Your task to perform on an android device: Turn off the flashlight Image 0: 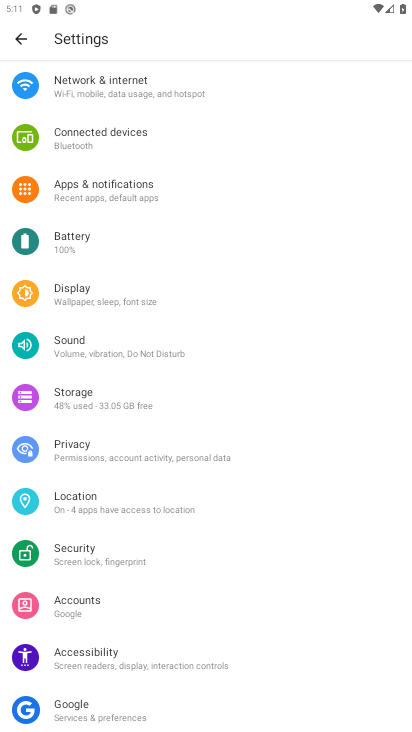
Step 0: press home button
Your task to perform on an android device: Turn off the flashlight Image 1: 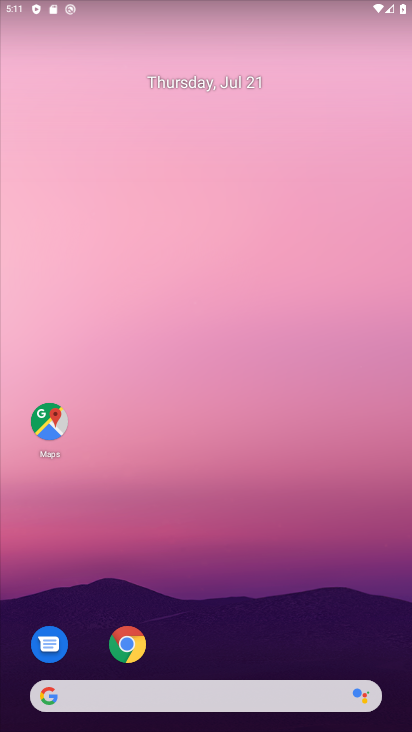
Step 1: drag from (253, 402) to (254, 123)
Your task to perform on an android device: Turn off the flashlight Image 2: 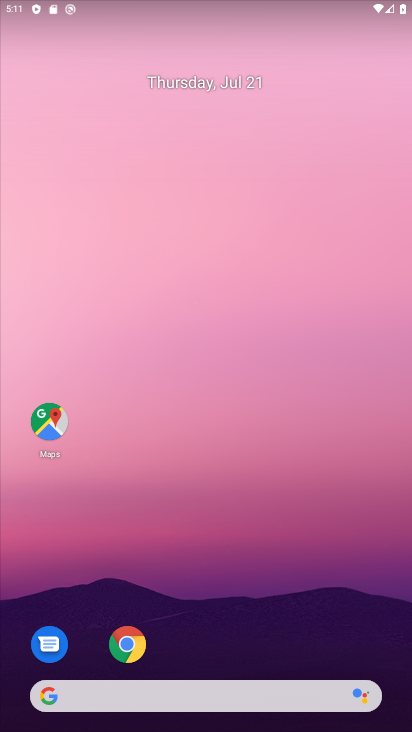
Step 2: drag from (249, 591) to (201, 127)
Your task to perform on an android device: Turn off the flashlight Image 3: 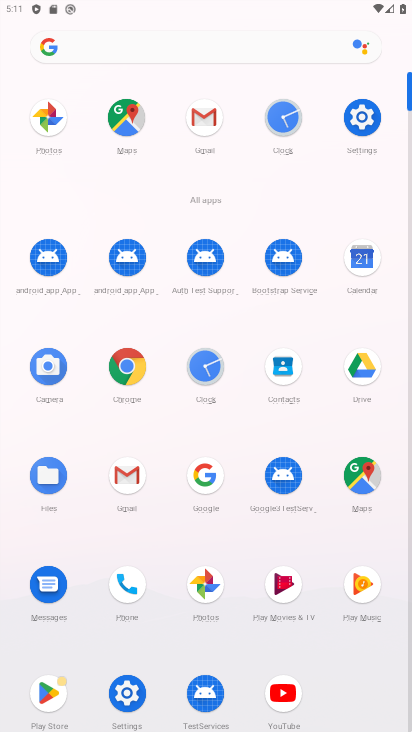
Step 3: click (351, 132)
Your task to perform on an android device: Turn off the flashlight Image 4: 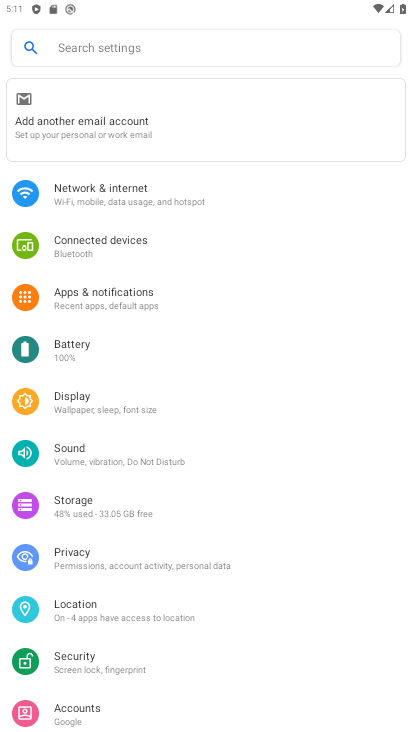
Step 4: task complete